Your task to perform on an android device: What's the weather today? Image 0: 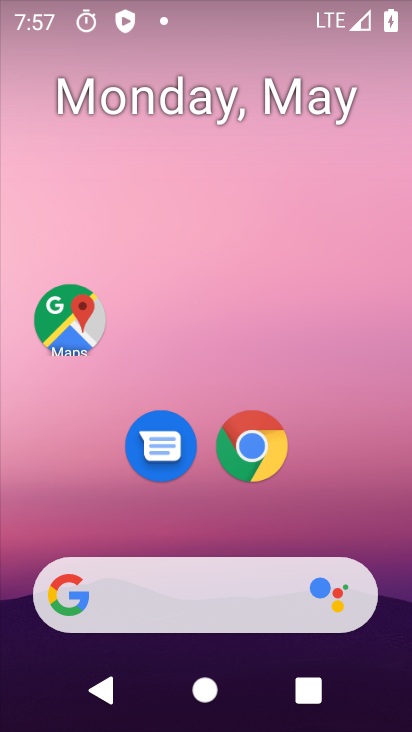
Step 0: click (131, 592)
Your task to perform on an android device: What's the weather today? Image 1: 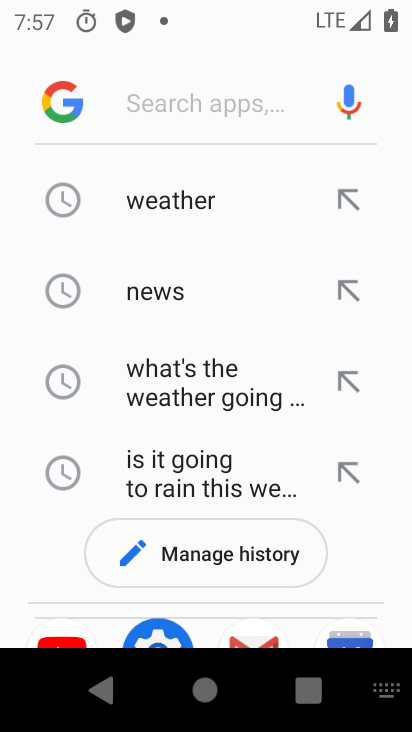
Step 1: click (142, 207)
Your task to perform on an android device: What's the weather today? Image 2: 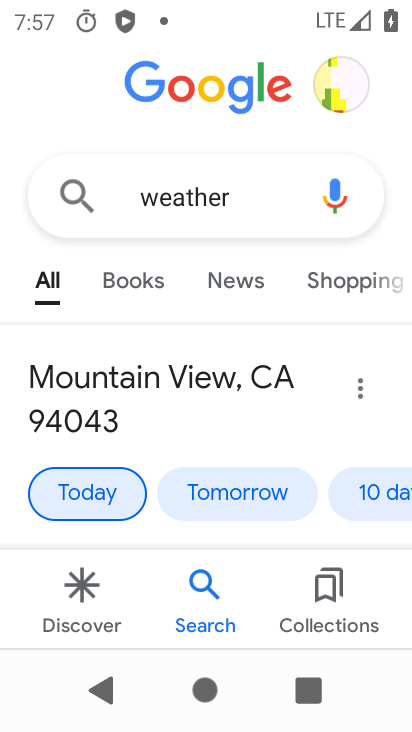
Step 2: task complete